Your task to perform on an android device: What's the weather today? Image 0: 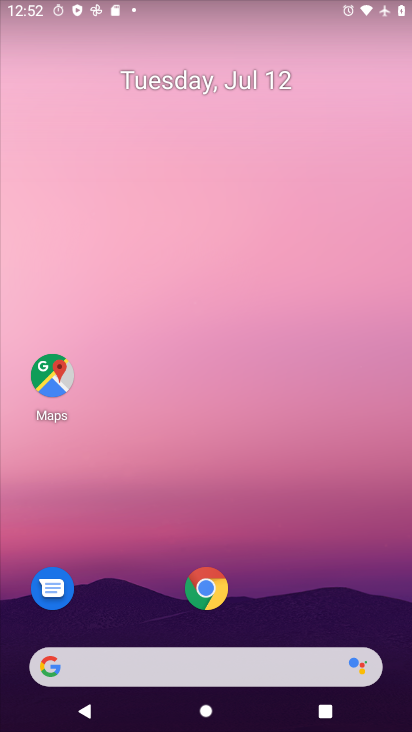
Step 0: press home button
Your task to perform on an android device: What's the weather today? Image 1: 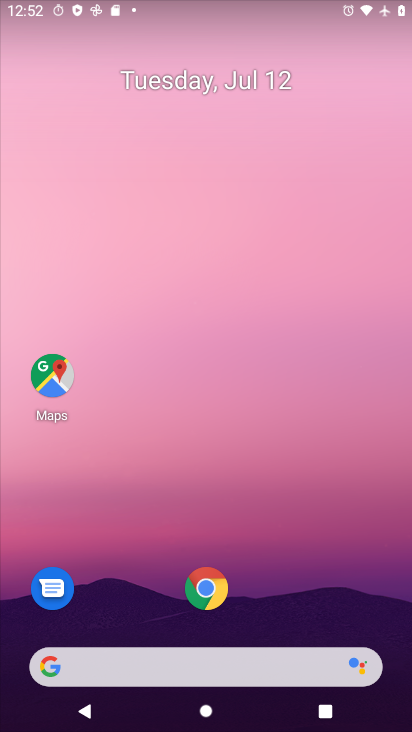
Step 1: drag from (183, 676) to (326, 120)
Your task to perform on an android device: What's the weather today? Image 2: 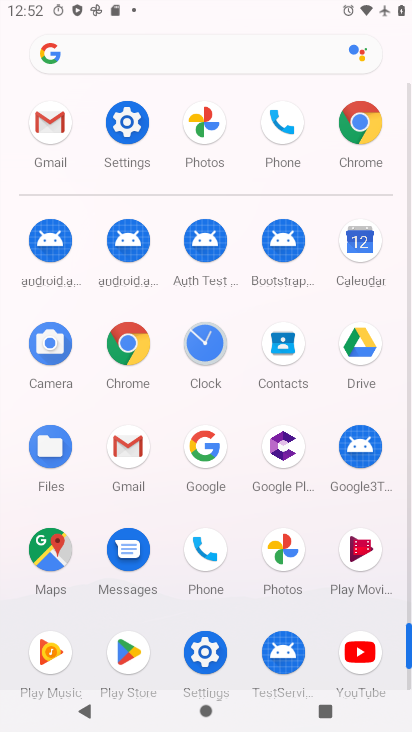
Step 2: click (210, 444)
Your task to perform on an android device: What's the weather today? Image 3: 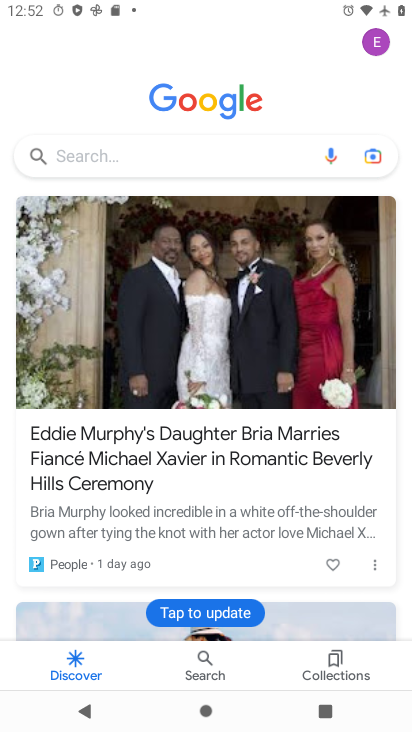
Step 3: click (199, 657)
Your task to perform on an android device: What's the weather today? Image 4: 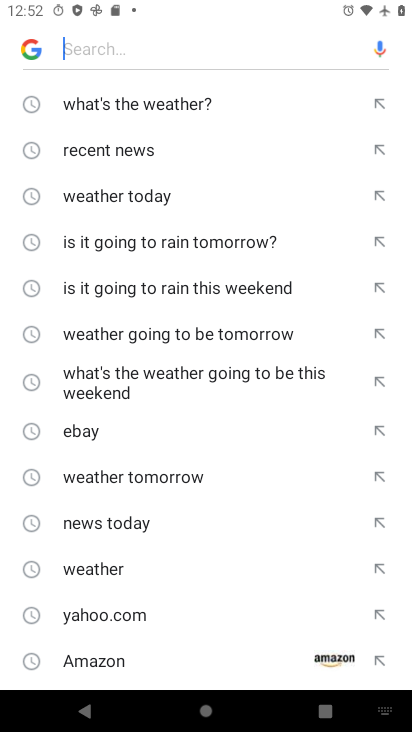
Step 4: click (141, 196)
Your task to perform on an android device: What's the weather today? Image 5: 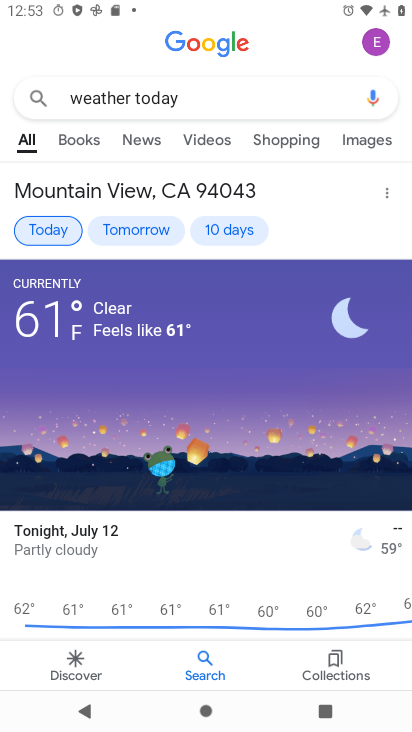
Step 5: task complete